Your task to perform on an android device: check android version Image 0: 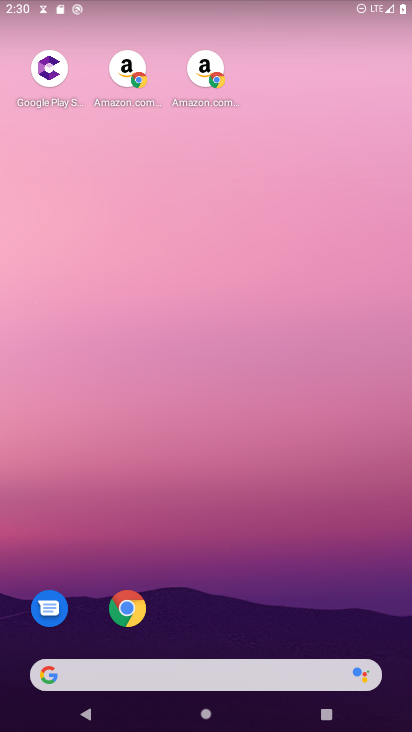
Step 0: drag from (224, 676) to (262, 0)
Your task to perform on an android device: check android version Image 1: 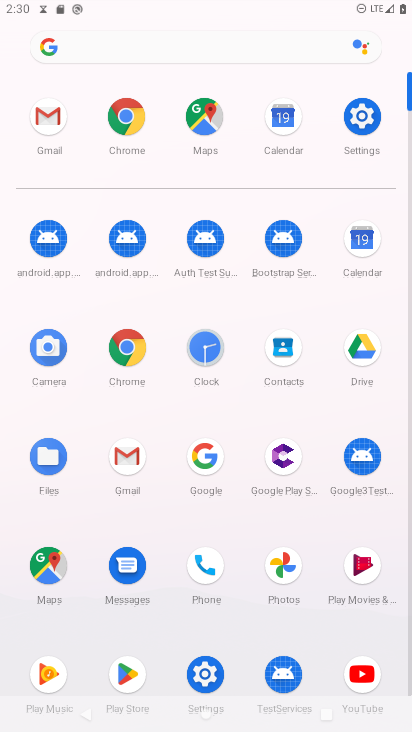
Step 1: click (365, 109)
Your task to perform on an android device: check android version Image 2: 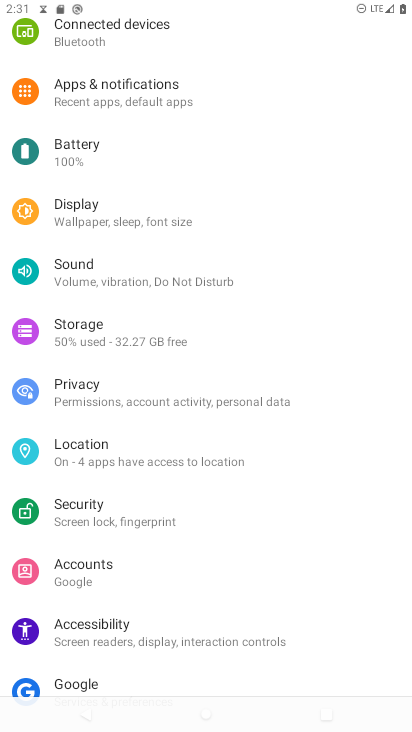
Step 2: press home button
Your task to perform on an android device: check android version Image 3: 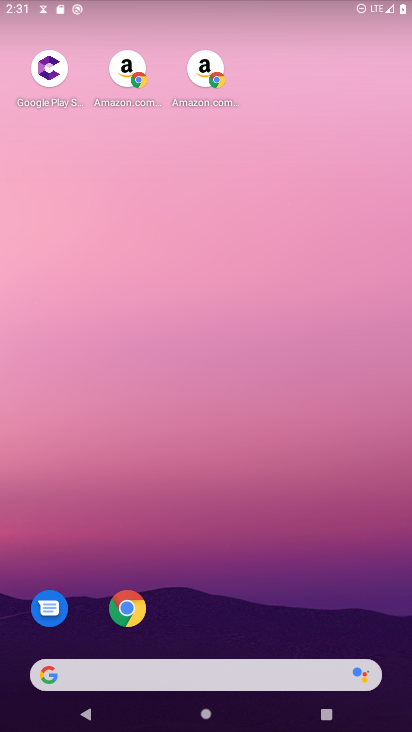
Step 3: drag from (205, 678) to (402, 2)
Your task to perform on an android device: check android version Image 4: 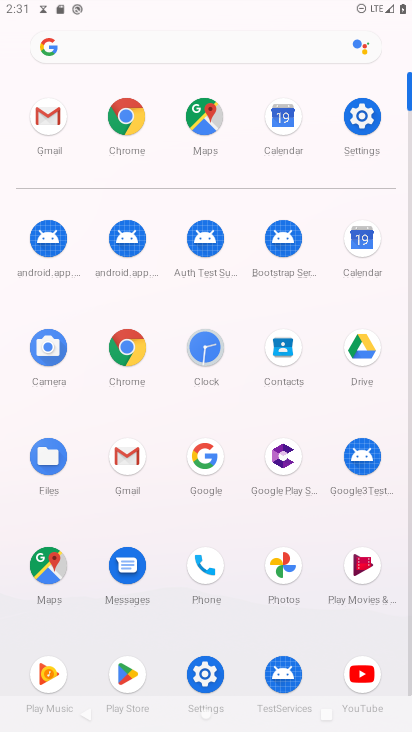
Step 4: click (134, 343)
Your task to perform on an android device: check android version Image 5: 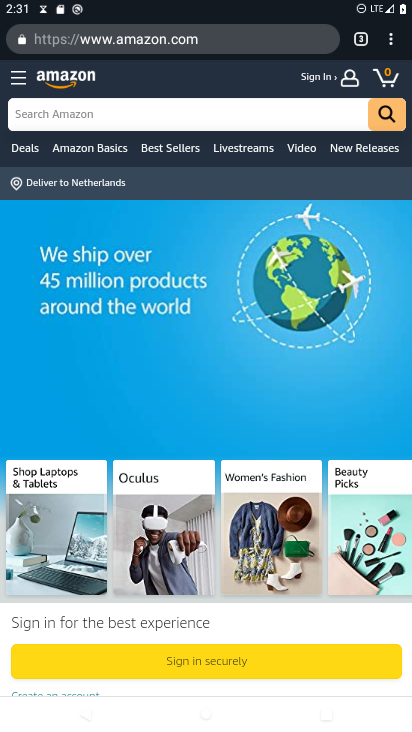
Step 5: drag from (386, 36) to (282, 468)
Your task to perform on an android device: check android version Image 6: 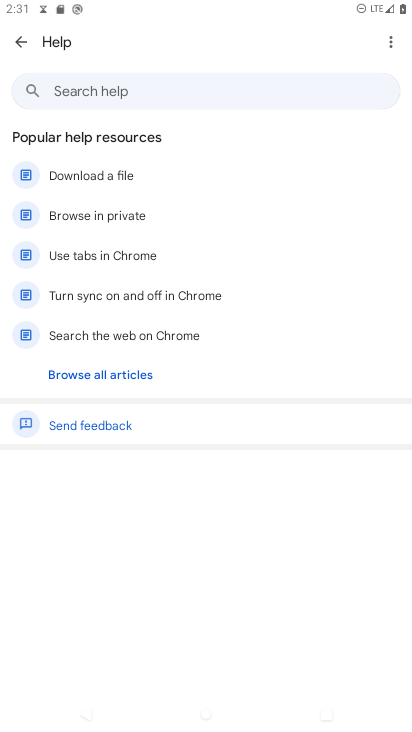
Step 6: click (394, 45)
Your task to perform on an android device: check android version Image 7: 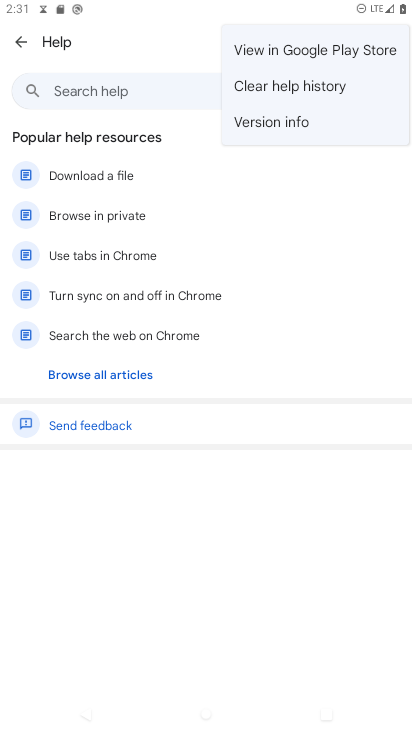
Step 7: click (309, 128)
Your task to perform on an android device: check android version Image 8: 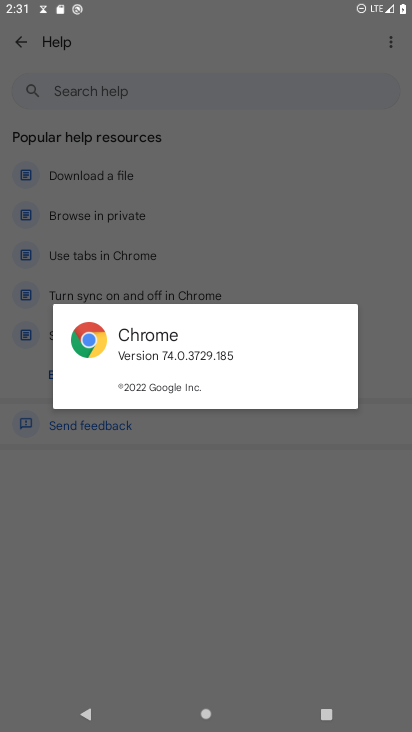
Step 8: task complete